Your task to perform on an android device: Open location settings Image 0: 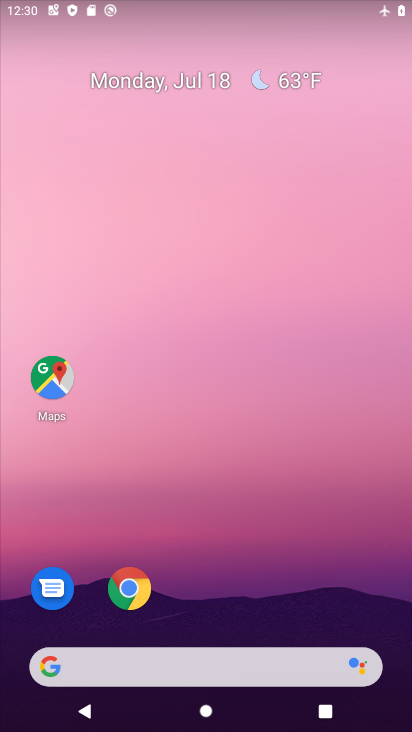
Step 0: drag from (243, 722) to (246, 123)
Your task to perform on an android device: Open location settings Image 1: 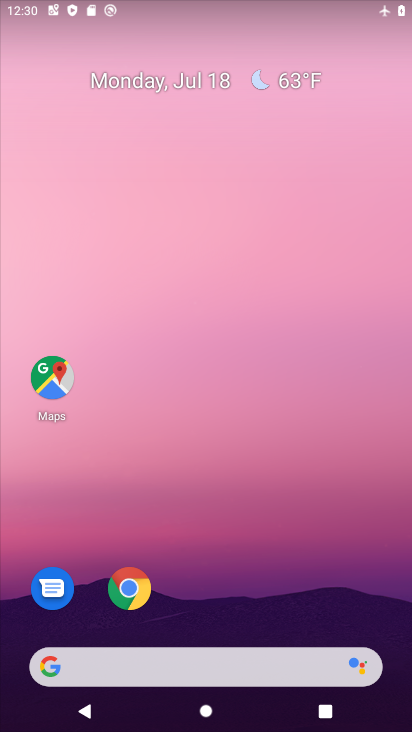
Step 1: drag from (247, 728) to (234, 82)
Your task to perform on an android device: Open location settings Image 2: 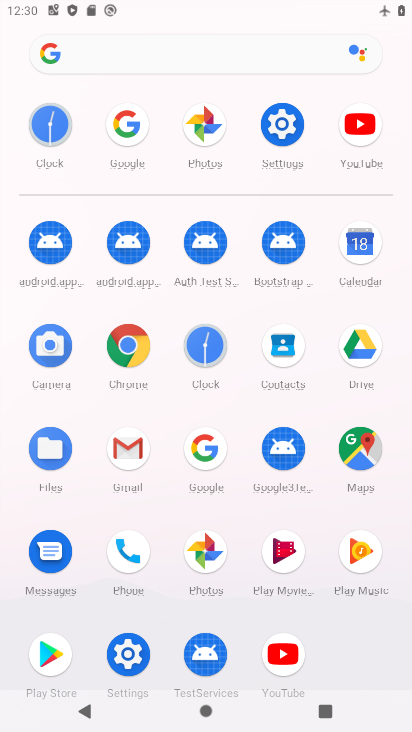
Step 2: click (282, 122)
Your task to perform on an android device: Open location settings Image 3: 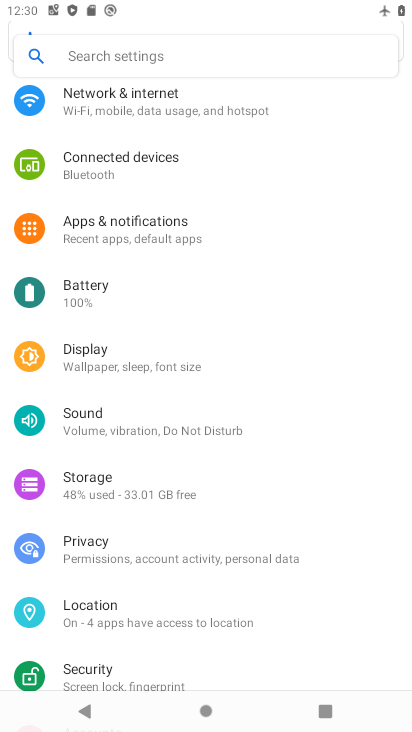
Step 3: click (93, 603)
Your task to perform on an android device: Open location settings Image 4: 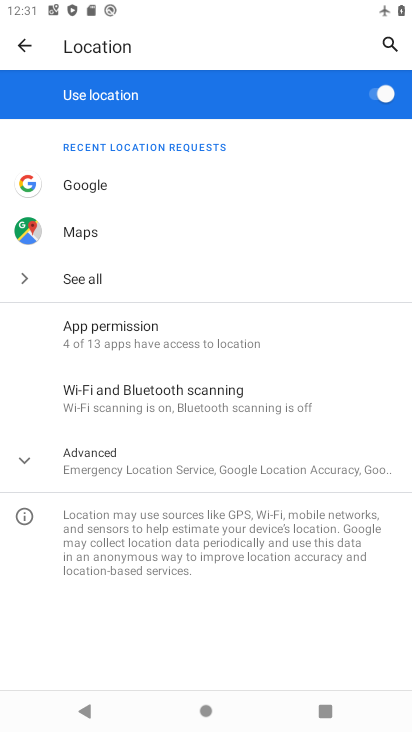
Step 4: task complete